Your task to perform on an android device: Open the map Image 0: 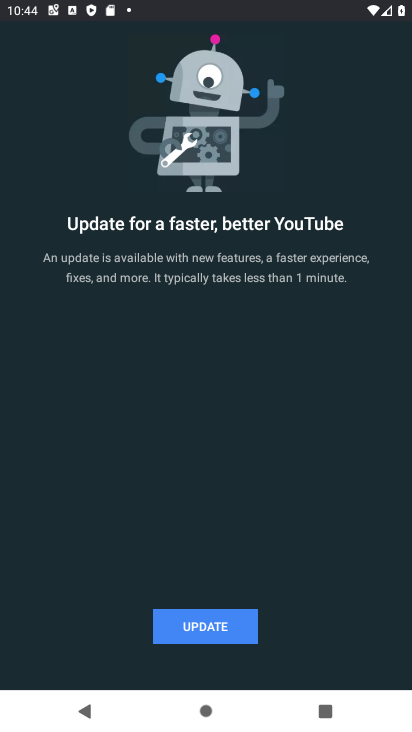
Step 0: press home button
Your task to perform on an android device: Open the map Image 1: 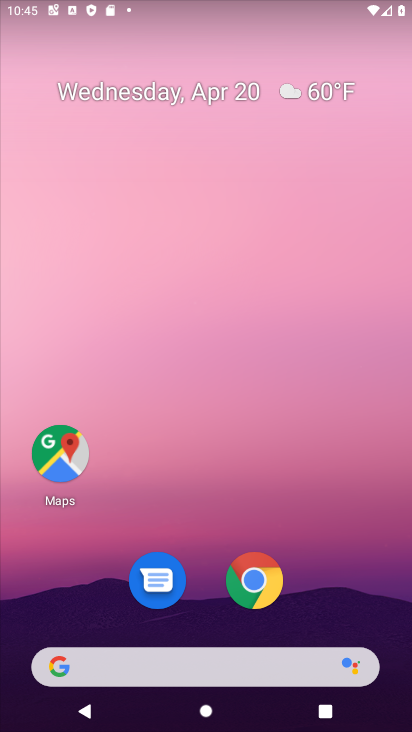
Step 1: click (66, 470)
Your task to perform on an android device: Open the map Image 2: 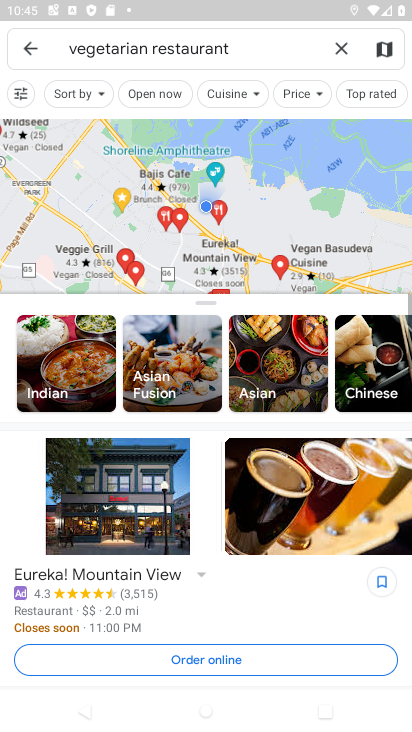
Step 2: task complete